Your task to perform on an android device: open app "Spotify: Music and Podcasts" (install if not already installed) and go to login screen Image 0: 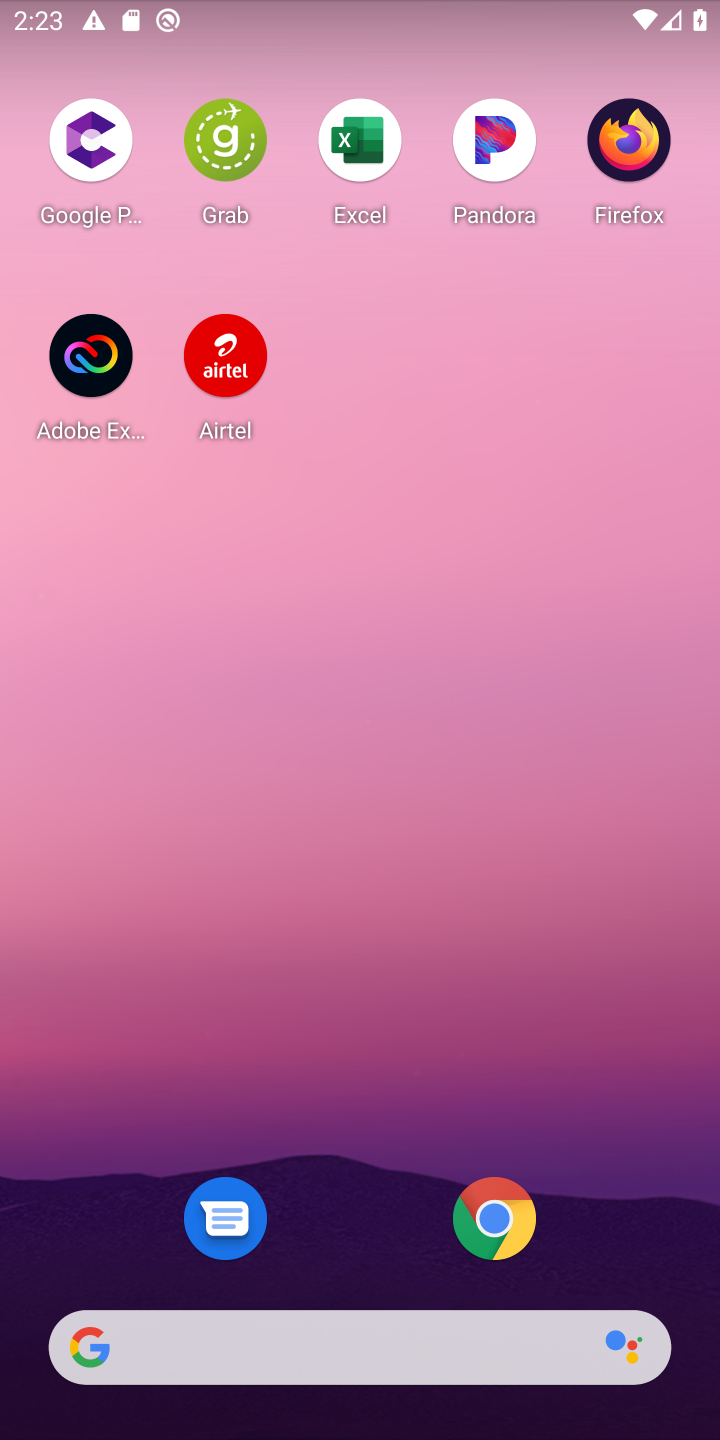
Step 0: drag from (390, 924) to (448, 389)
Your task to perform on an android device: open app "Spotify: Music and Podcasts" (install if not already installed) and go to login screen Image 1: 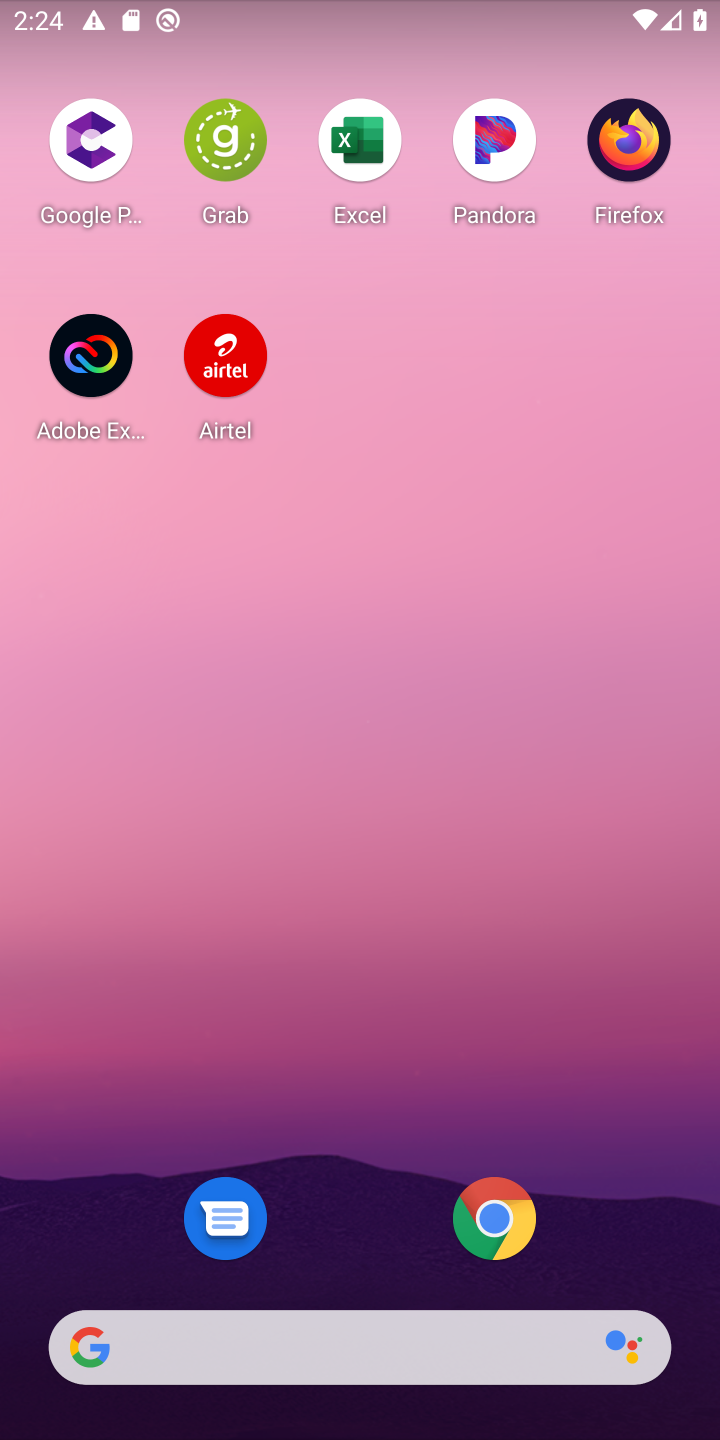
Step 1: drag from (393, 919) to (408, 389)
Your task to perform on an android device: open app "Spotify: Music and Podcasts" (install if not already installed) and go to login screen Image 2: 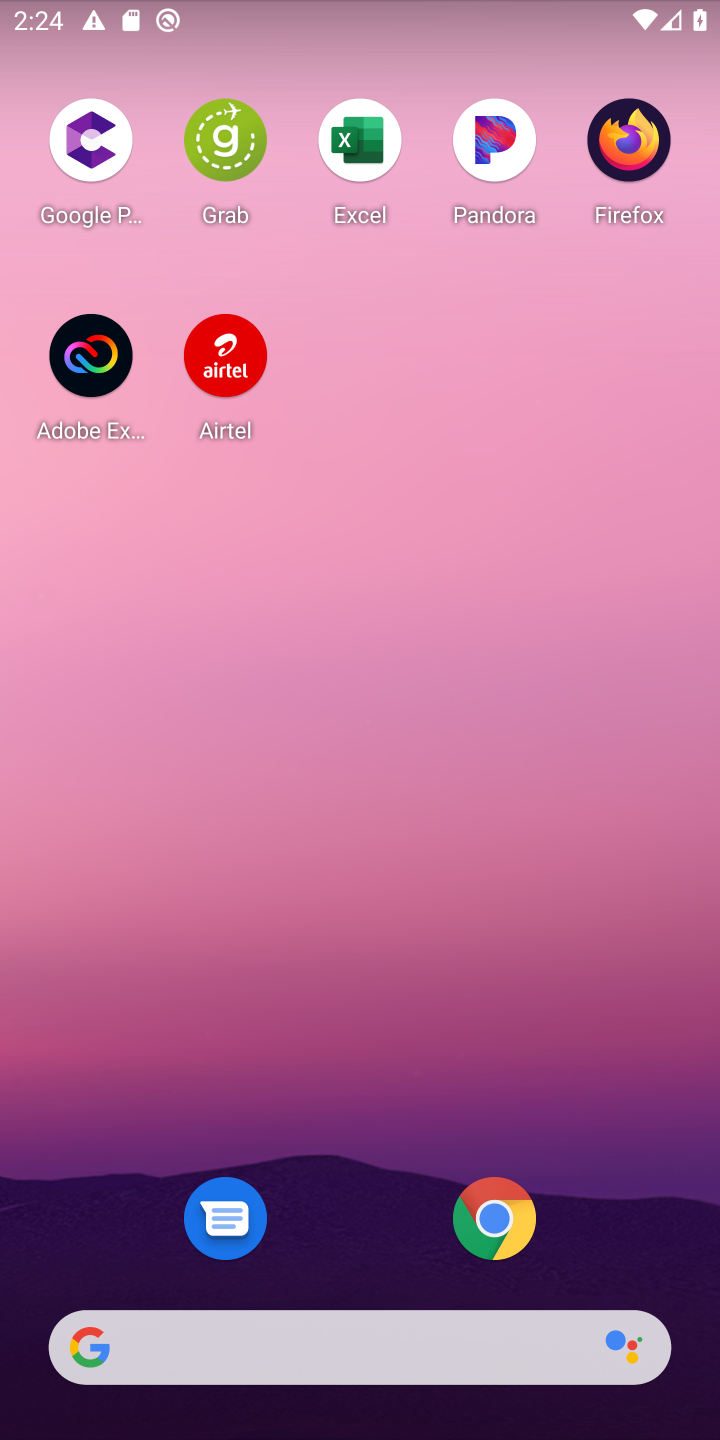
Step 2: drag from (412, 994) to (443, 323)
Your task to perform on an android device: open app "Spotify: Music and Podcasts" (install if not already installed) and go to login screen Image 3: 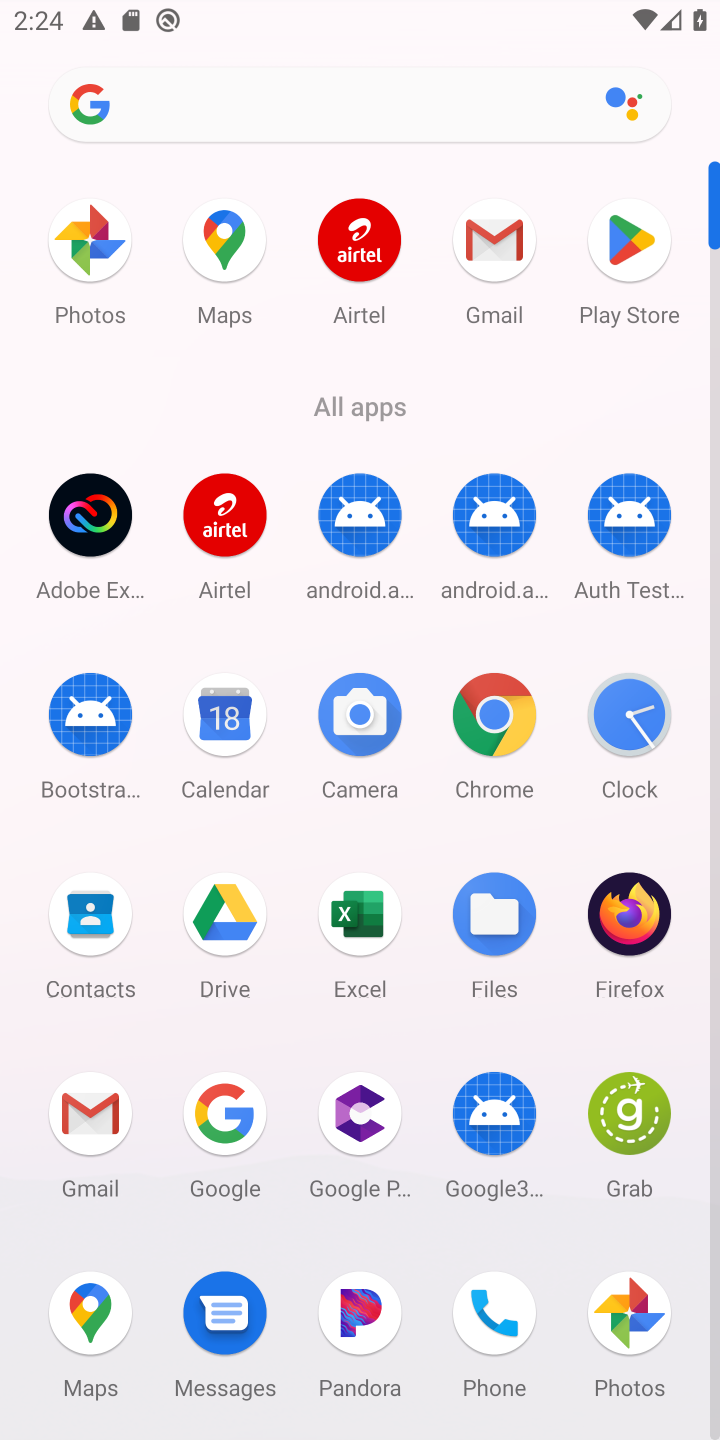
Step 3: click (639, 275)
Your task to perform on an android device: open app "Spotify: Music and Podcasts" (install if not already installed) and go to login screen Image 4: 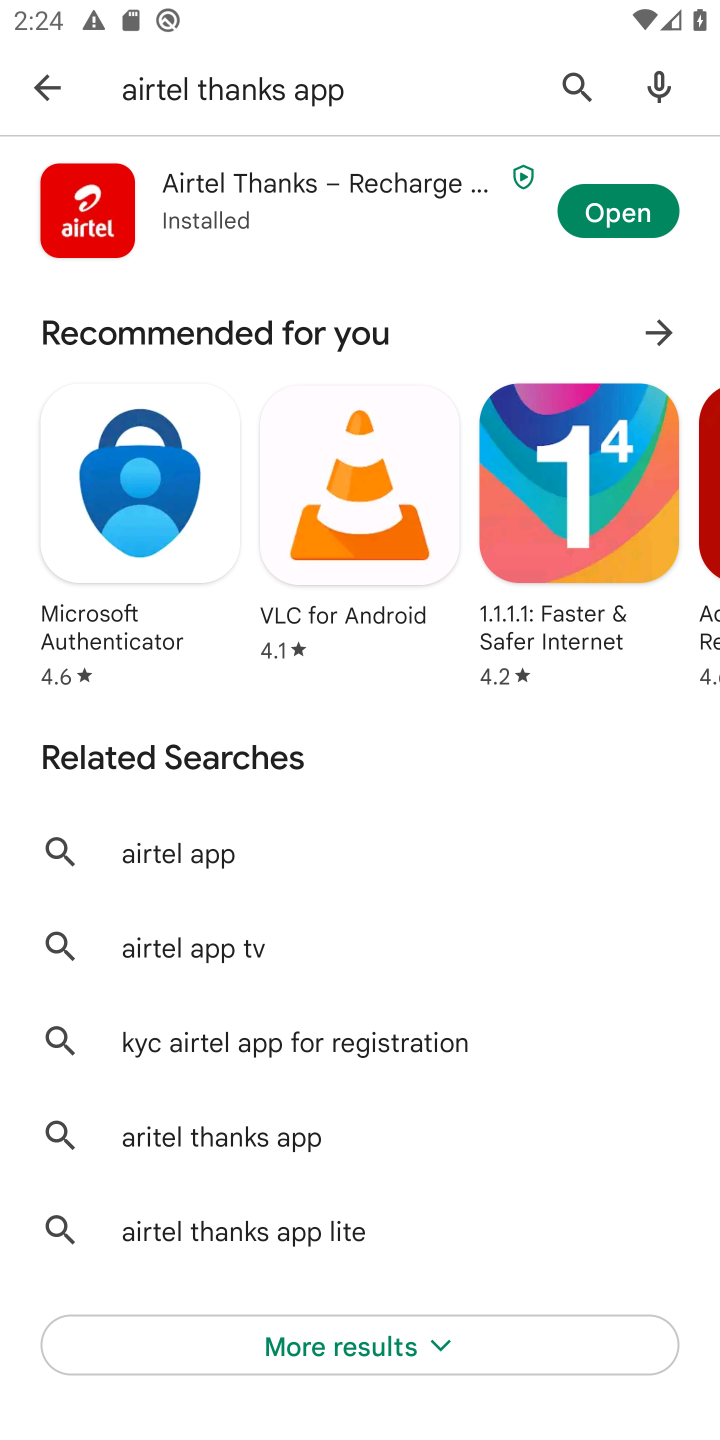
Step 4: click (650, 84)
Your task to perform on an android device: open app "Spotify: Music and Podcasts" (install if not already installed) and go to login screen Image 5: 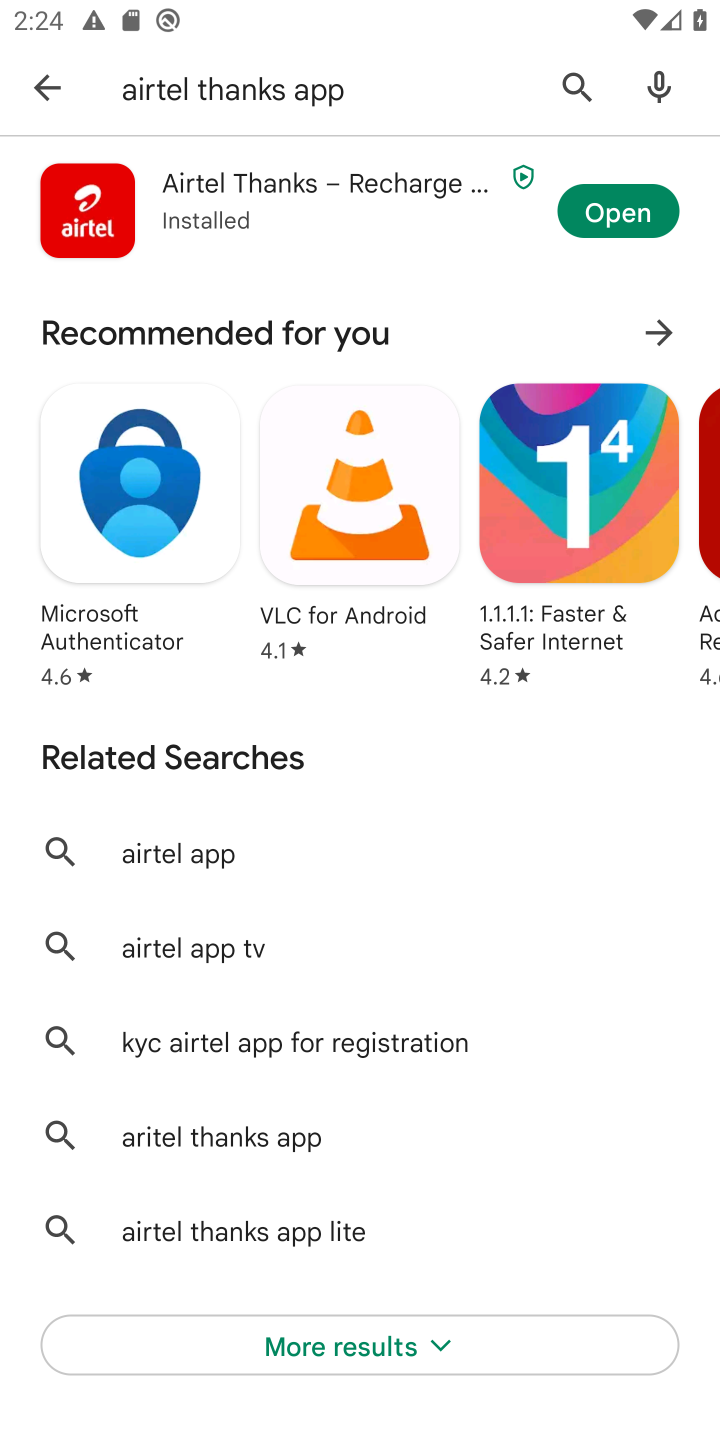
Step 5: click (585, 72)
Your task to perform on an android device: open app "Spotify: Music and Podcasts" (install if not already installed) and go to login screen Image 6: 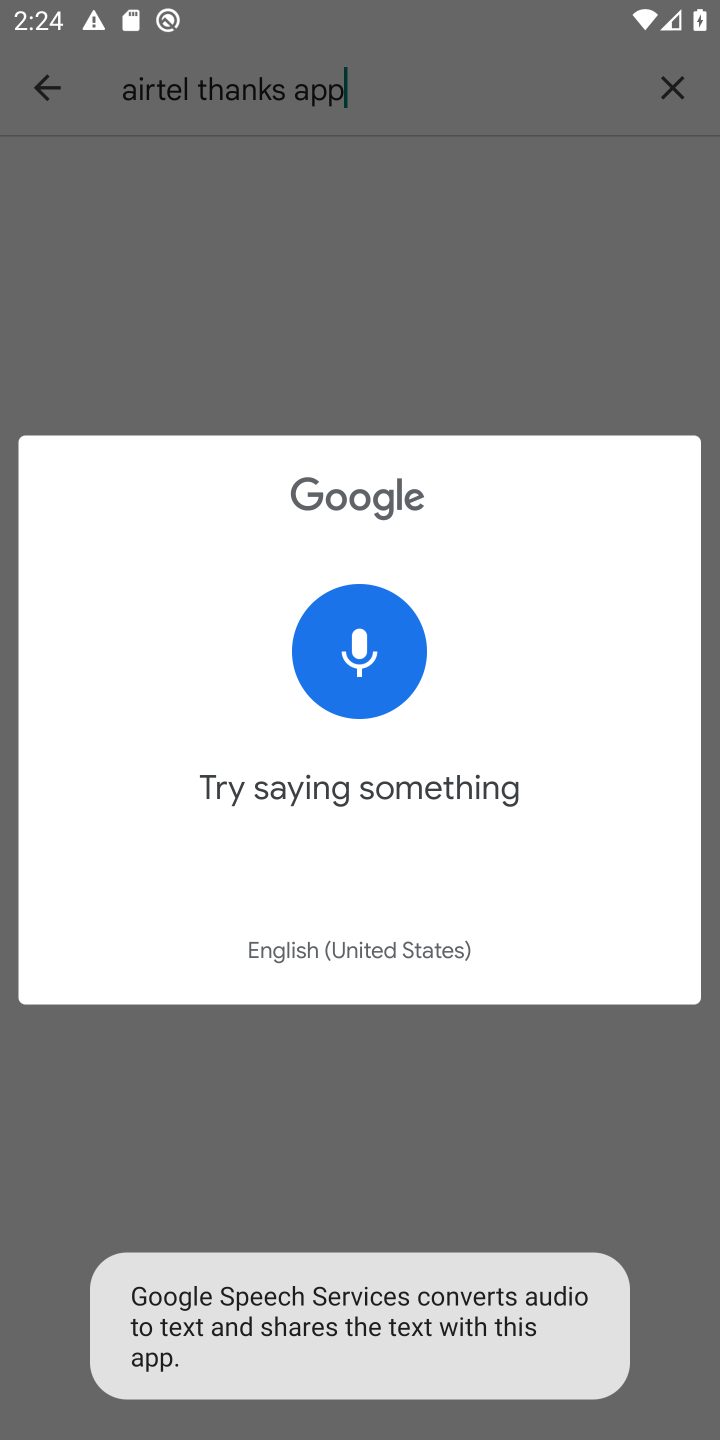
Step 6: click (661, 87)
Your task to perform on an android device: open app "Spotify: Music and Podcasts" (install if not already installed) and go to login screen Image 7: 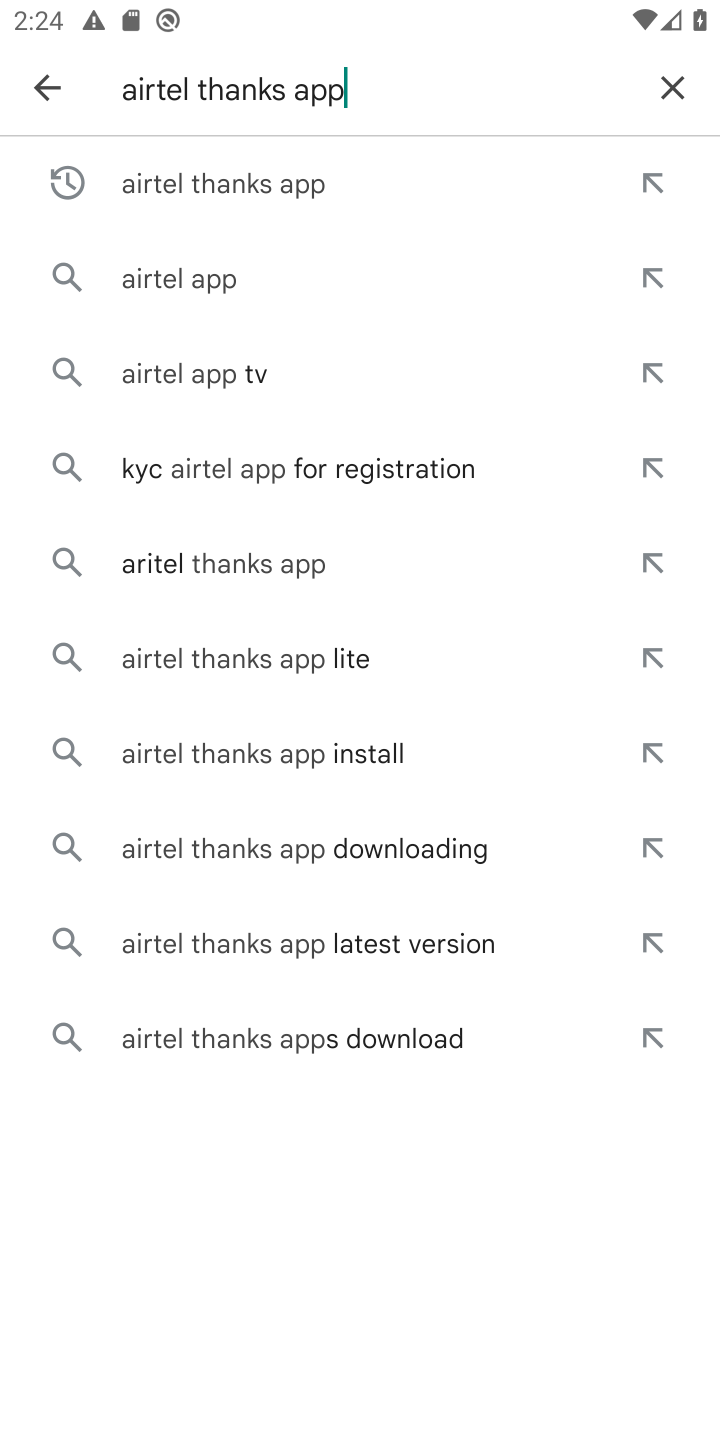
Step 7: click (675, 72)
Your task to perform on an android device: open app "Spotify: Music and Podcasts" (install if not already installed) and go to login screen Image 8: 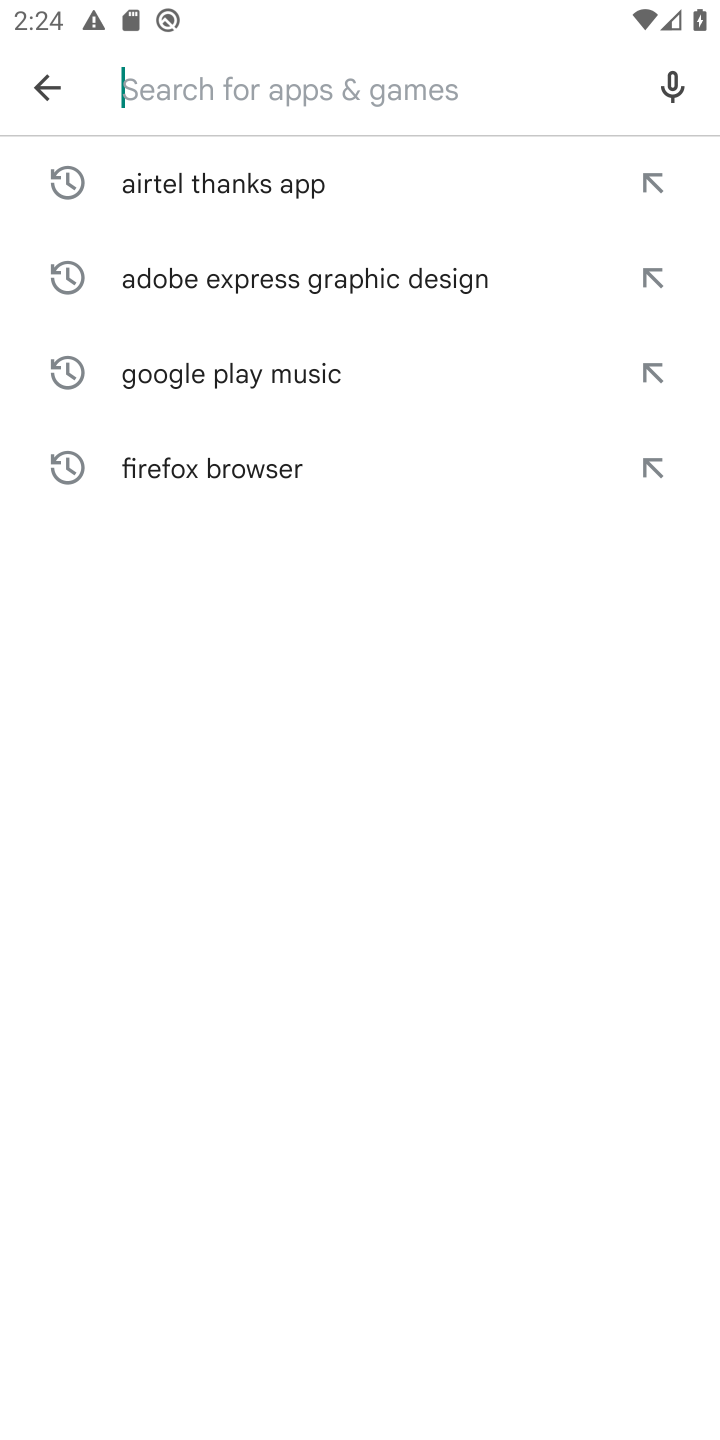
Step 8: type "Spotify: Music and Podcasts"
Your task to perform on an android device: open app "Spotify: Music and Podcasts" (install if not already installed) and go to login screen Image 9: 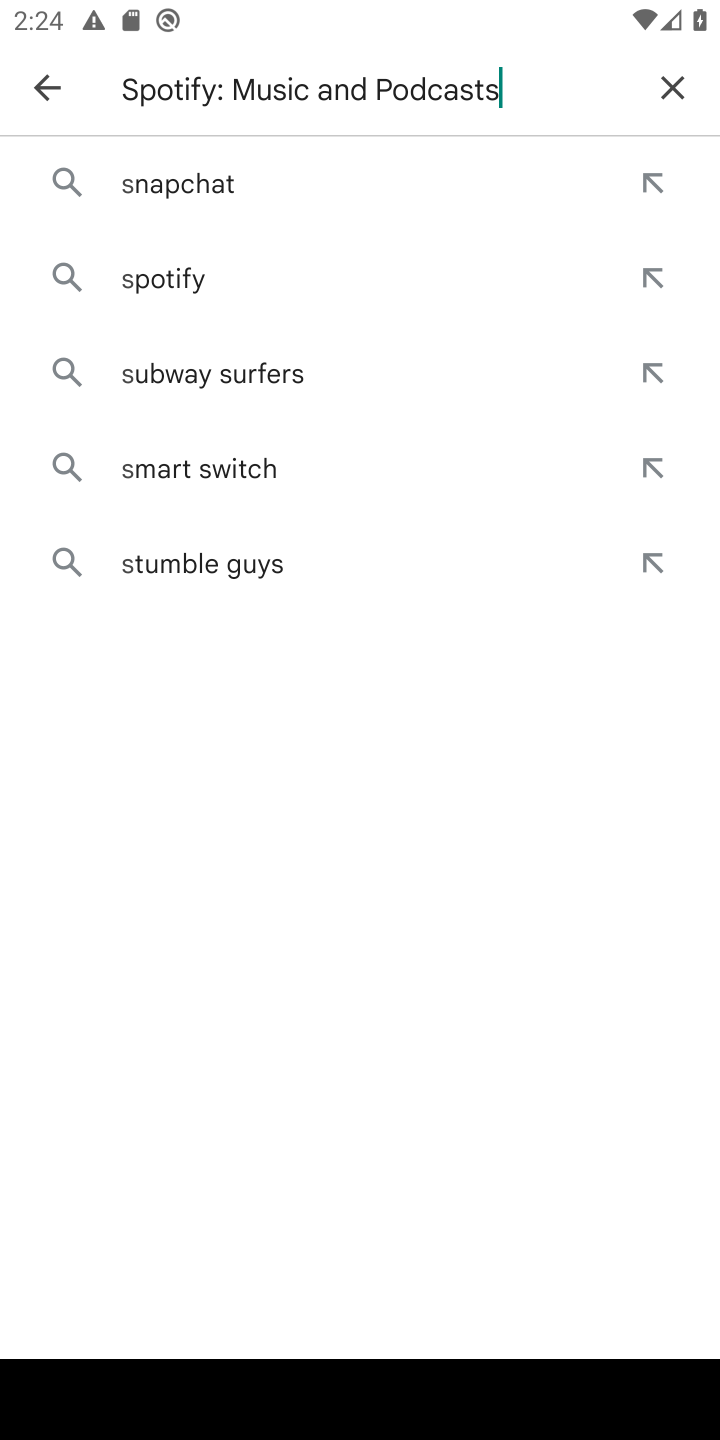
Step 9: type ""
Your task to perform on an android device: open app "Spotify: Music and Podcasts" (install if not already installed) and go to login screen Image 10: 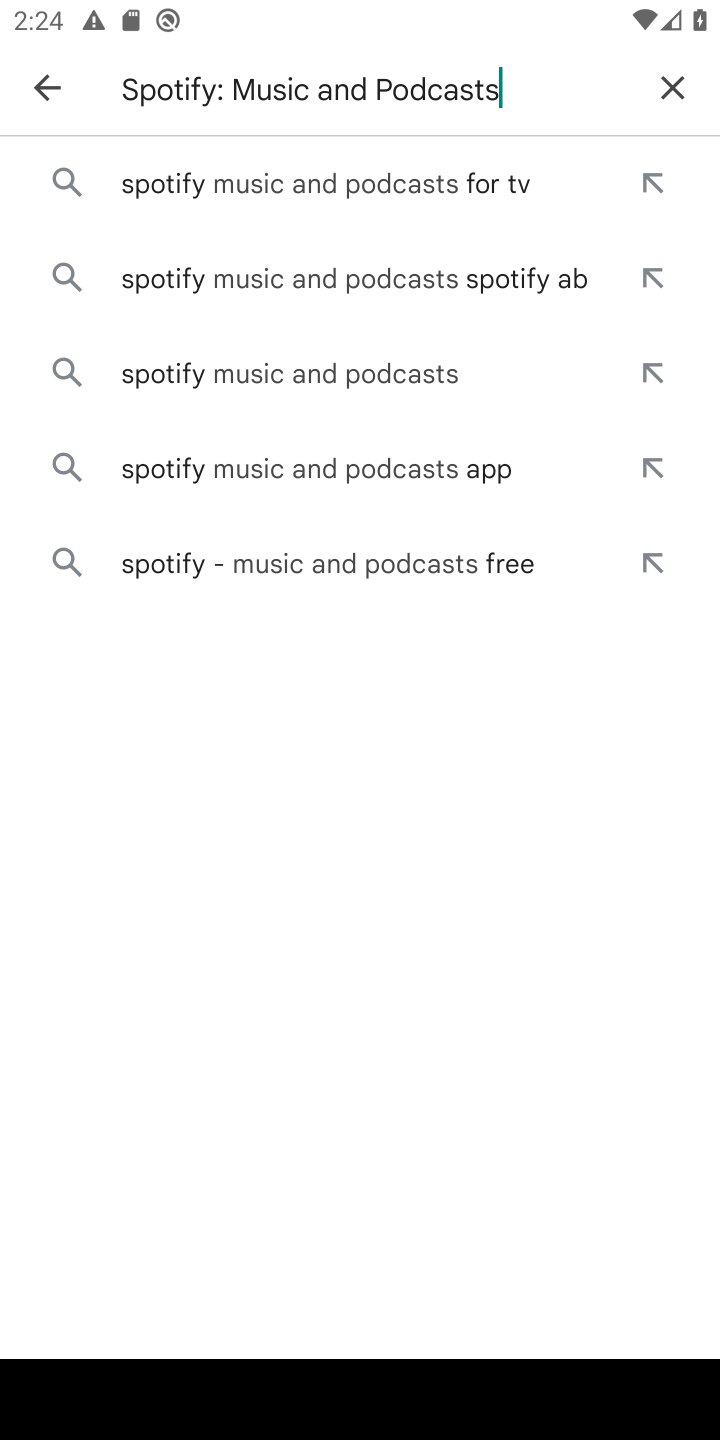
Step 10: click (348, 189)
Your task to perform on an android device: open app "Spotify: Music and Podcasts" (install if not already installed) and go to login screen Image 11: 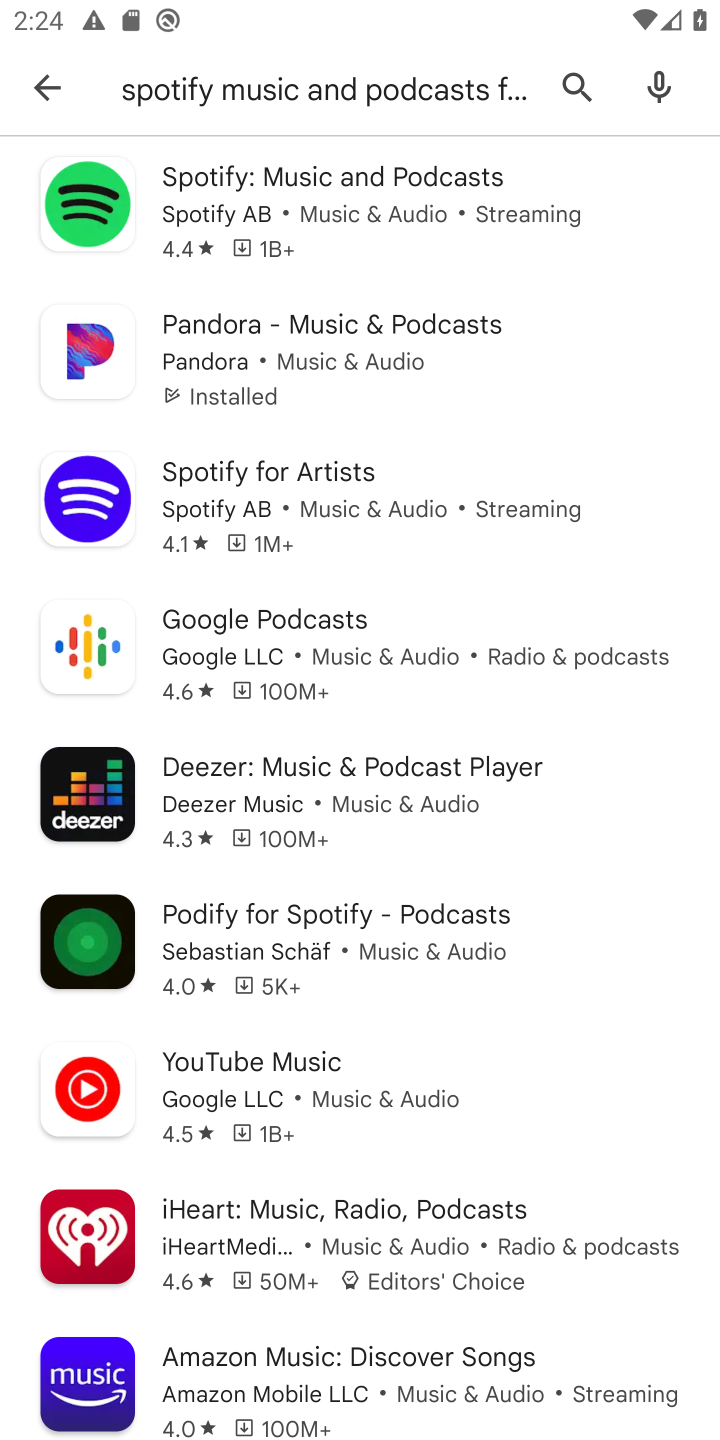
Step 11: click (348, 189)
Your task to perform on an android device: open app "Spotify: Music and Podcasts" (install if not already installed) and go to login screen Image 12: 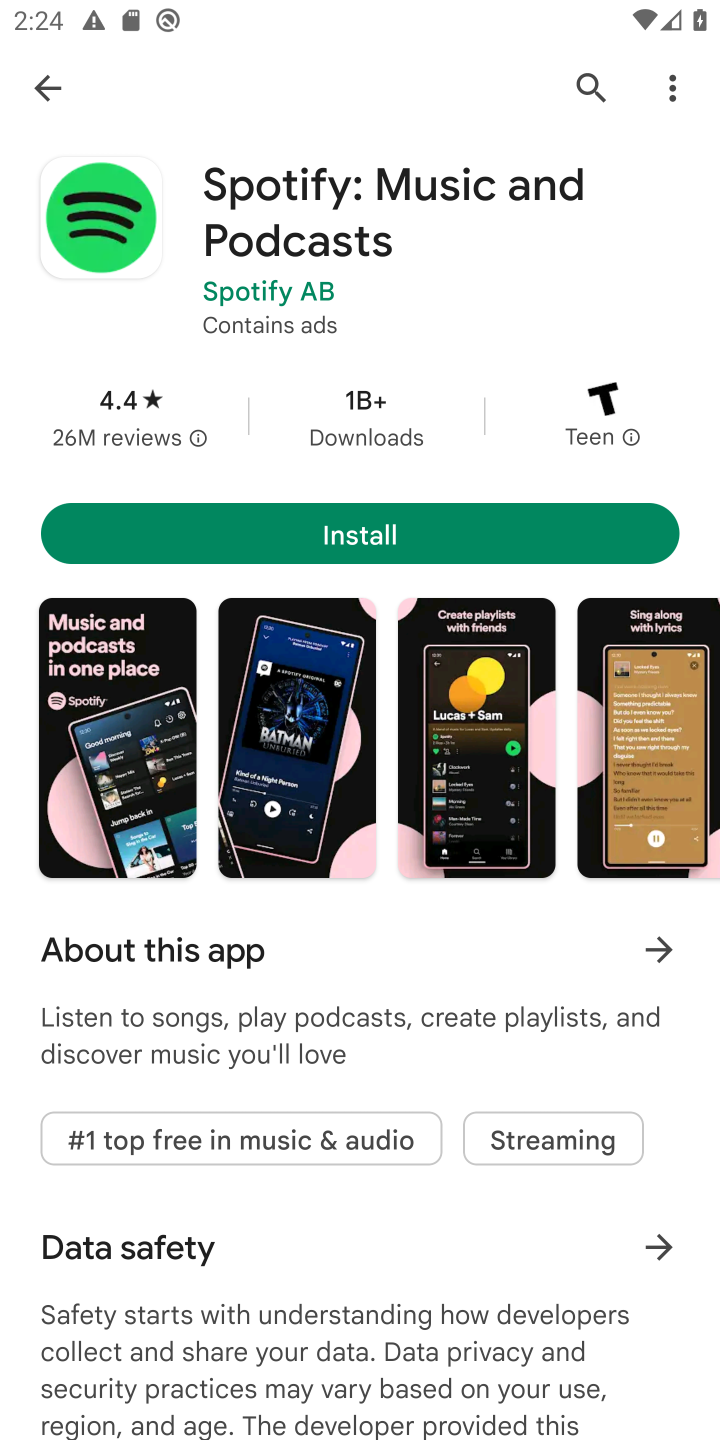
Step 12: click (419, 525)
Your task to perform on an android device: open app "Spotify: Music and Podcasts" (install if not already installed) and go to login screen Image 13: 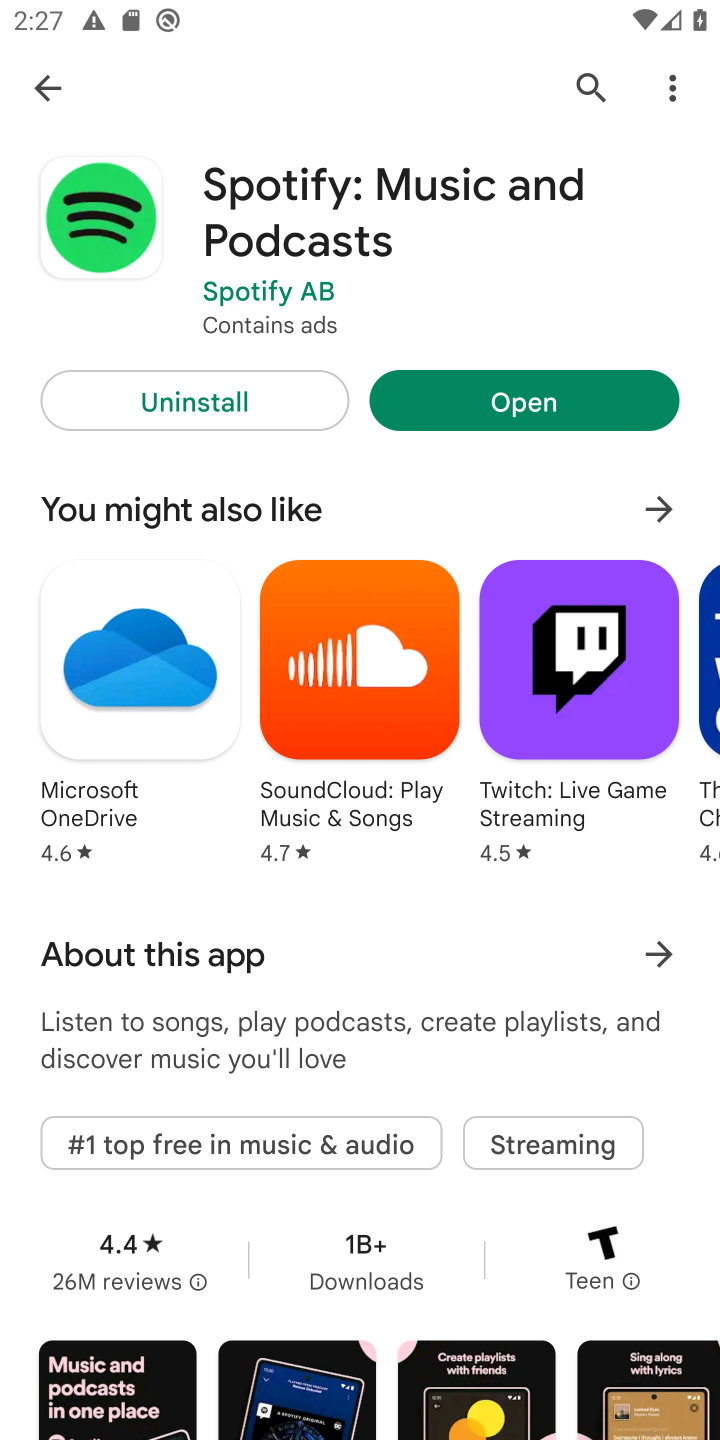
Step 13: click (593, 423)
Your task to perform on an android device: open app "Spotify: Music and Podcasts" (install if not already installed) and go to login screen Image 14: 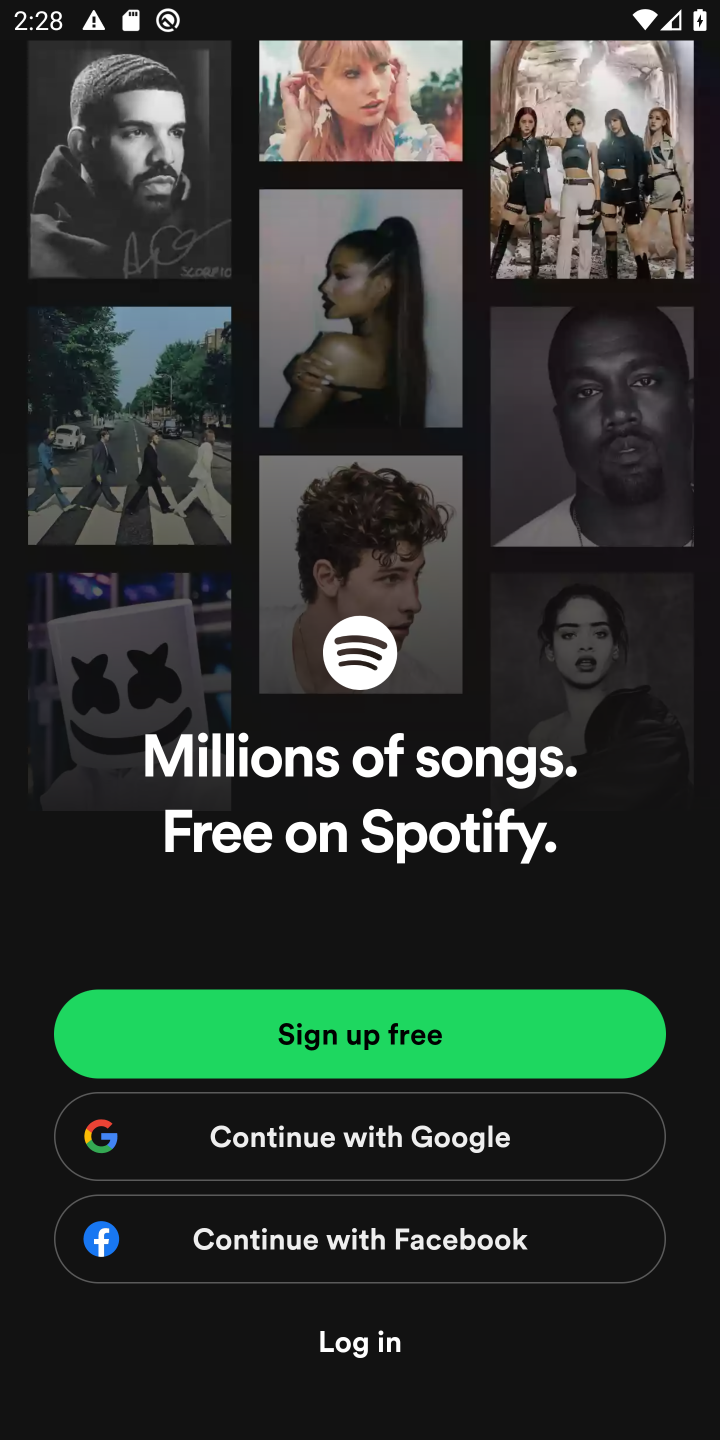
Step 14: task complete